Your task to perform on an android device: Search for usb-c to usb-a on newegg.com, select the first entry, add it to the cart, then select checkout. Image 0: 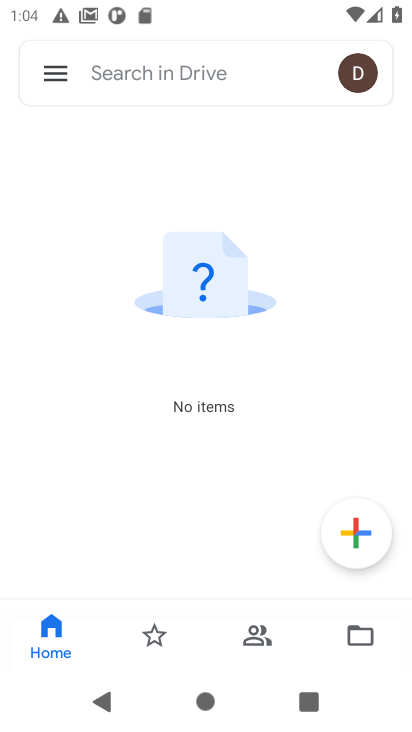
Step 0: press home button
Your task to perform on an android device: Search for usb-c to usb-a on newegg.com, select the first entry, add it to the cart, then select checkout. Image 1: 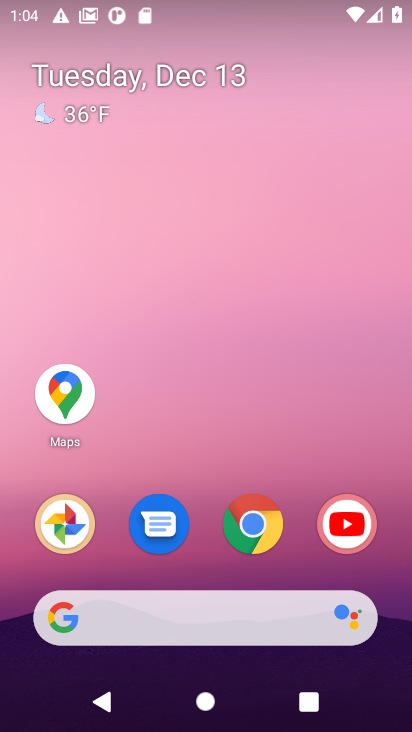
Step 1: click (260, 525)
Your task to perform on an android device: Search for usb-c to usb-a on newegg.com, select the first entry, add it to the cart, then select checkout. Image 2: 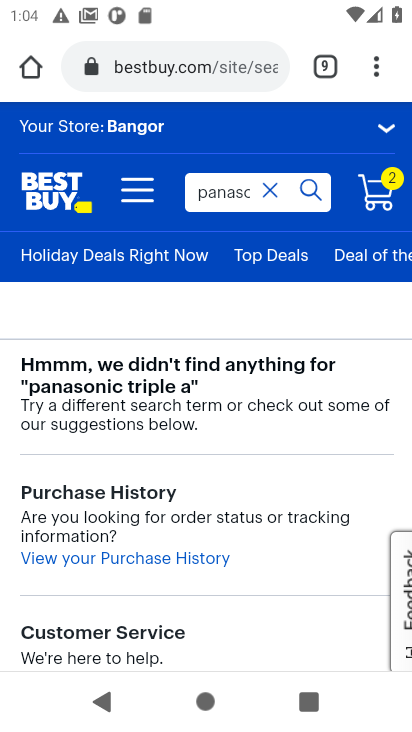
Step 2: click (165, 68)
Your task to perform on an android device: Search for usb-c to usb-a on newegg.com, select the first entry, add it to the cart, then select checkout. Image 3: 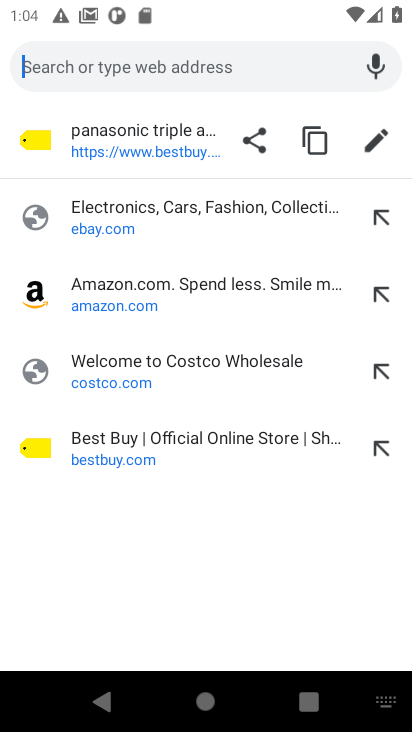
Step 3: type "newegg.com"
Your task to perform on an android device: Search for usb-c to usb-a on newegg.com, select the first entry, add it to the cart, then select checkout. Image 4: 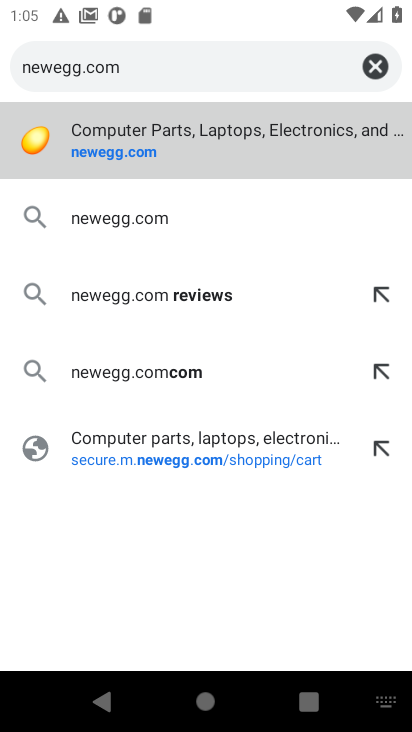
Step 4: click (120, 140)
Your task to perform on an android device: Search for usb-c to usb-a on newegg.com, select the first entry, add it to the cart, then select checkout. Image 5: 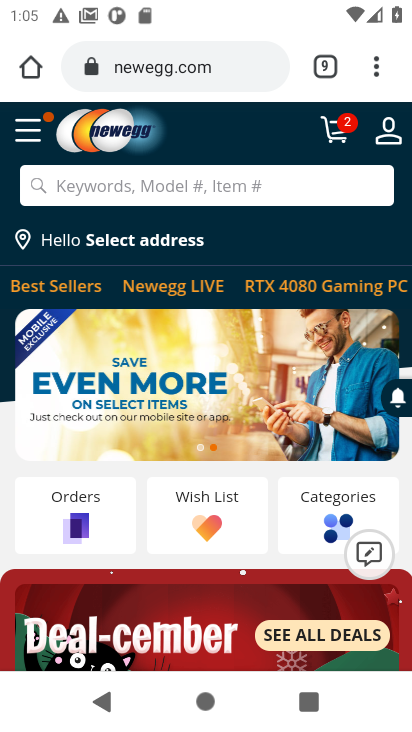
Step 5: click (71, 185)
Your task to perform on an android device: Search for usb-c to usb-a on newegg.com, select the first entry, add it to the cart, then select checkout. Image 6: 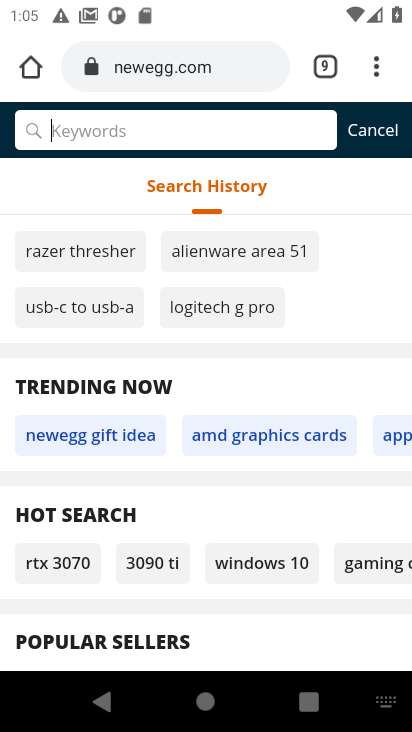
Step 6: type "usb-c to usb-a"
Your task to perform on an android device: Search for usb-c to usb-a on newegg.com, select the first entry, add it to the cart, then select checkout. Image 7: 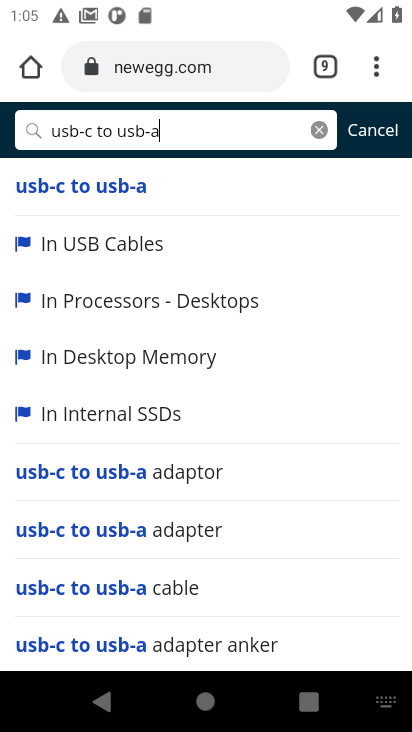
Step 7: click (107, 187)
Your task to perform on an android device: Search for usb-c to usb-a on newegg.com, select the first entry, add it to the cart, then select checkout. Image 8: 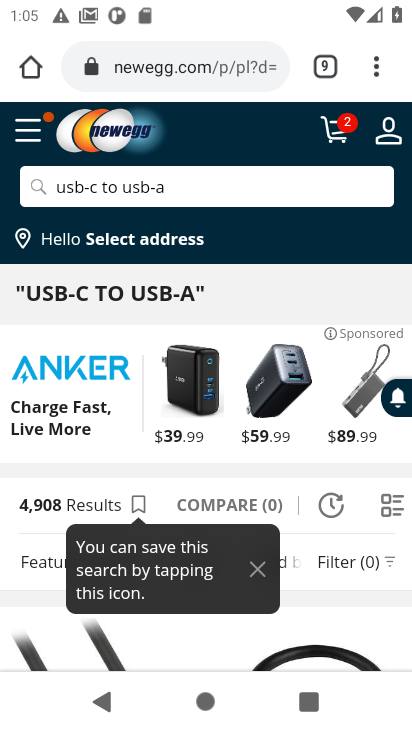
Step 8: drag from (297, 613) to (303, 294)
Your task to perform on an android device: Search for usb-c to usb-a on newegg.com, select the first entry, add it to the cart, then select checkout. Image 9: 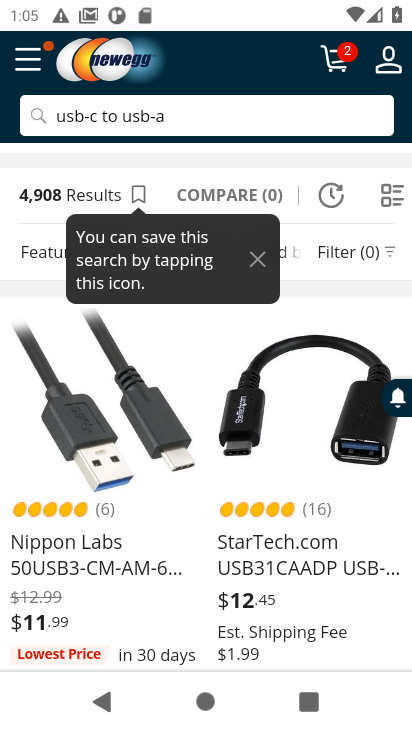
Step 9: drag from (157, 419) to (165, 561)
Your task to perform on an android device: Search for usb-c to usb-a on newegg.com, select the first entry, add it to the cart, then select checkout. Image 10: 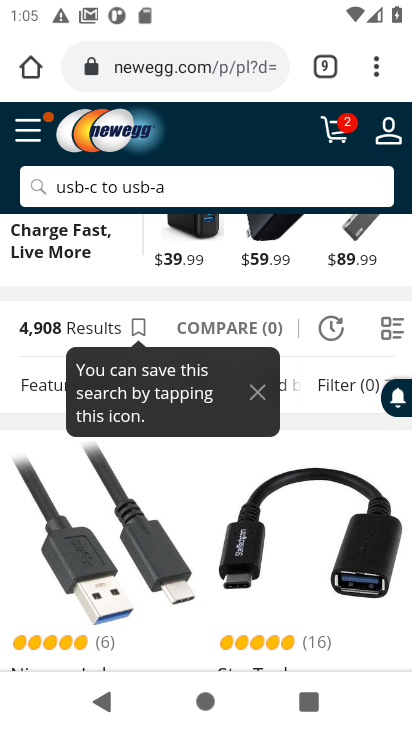
Step 10: drag from (130, 518) to (134, 669)
Your task to perform on an android device: Search for usb-c to usb-a on newegg.com, select the first entry, add it to the cart, then select checkout. Image 11: 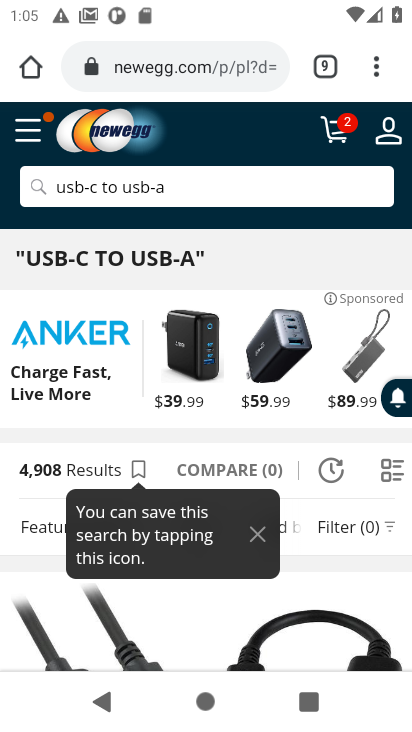
Step 11: drag from (164, 637) to (158, 340)
Your task to perform on an android device: Search for usb-c to usb-a on newegg.com, select the first entry, add it to the cart, then select checkout. Image 12: 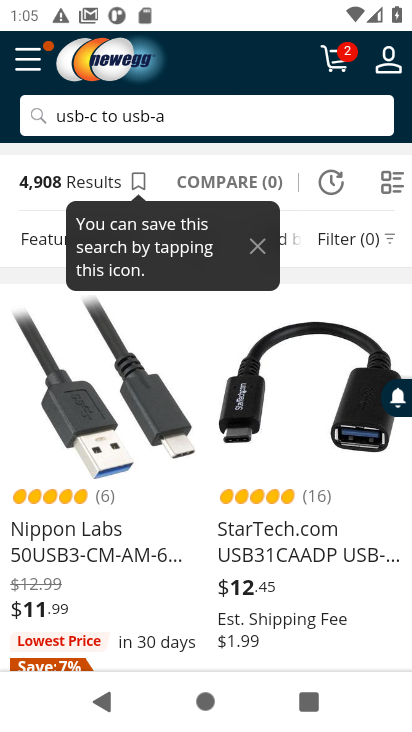
Step 12: click (257, 249)
Your task to perform on an android device: Search for usb-c to usb-a on newegg.com, select the first entry, add it to the cart, then select checkout. Image 13: 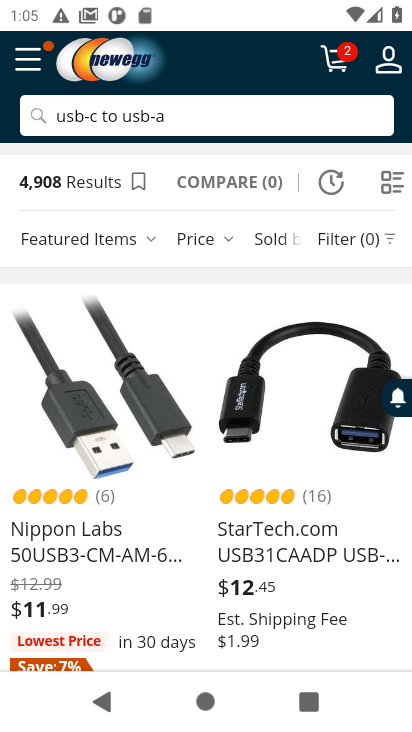
Step 13: click (94, 421)
Your task to perform on an android device: Search for usb-c to usb-a on newegg.com, select the first entry, add it to the cart, then select checkout. Image 14: 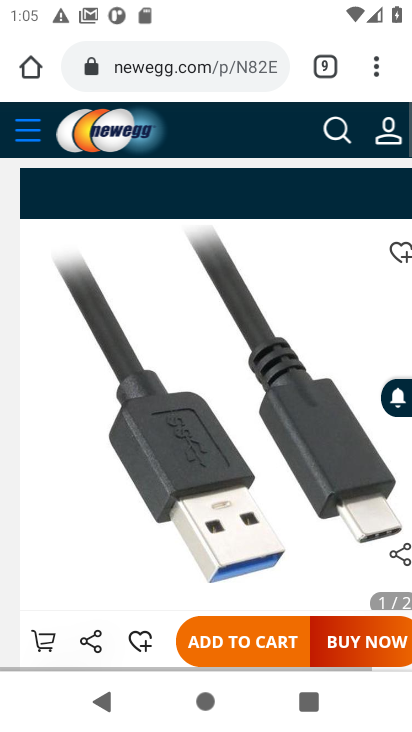
Step 14: drag from (138, 556) to (107, 266)
Your task to perform on an android device: Search for usb-c to usb-a on newegg.com, select the first entry, add it to the cart, then select checkout. Image 15: 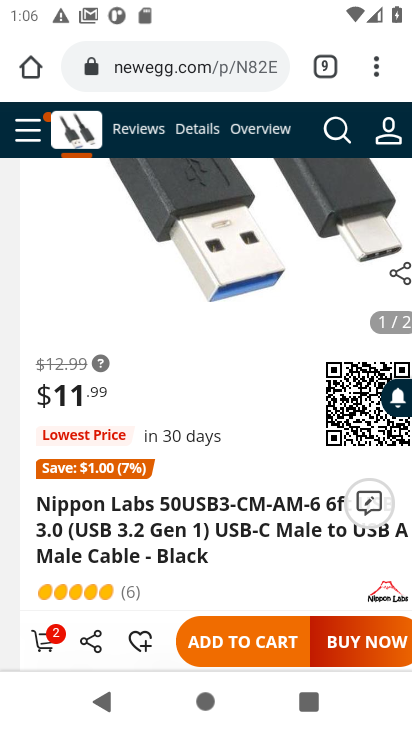
Step 15: click (255, 637)
Your task to perform on an android device: Search for usb-c to usb-a on newegg.com, select the first entry, add it to the cart, then select checkout. Image 16: 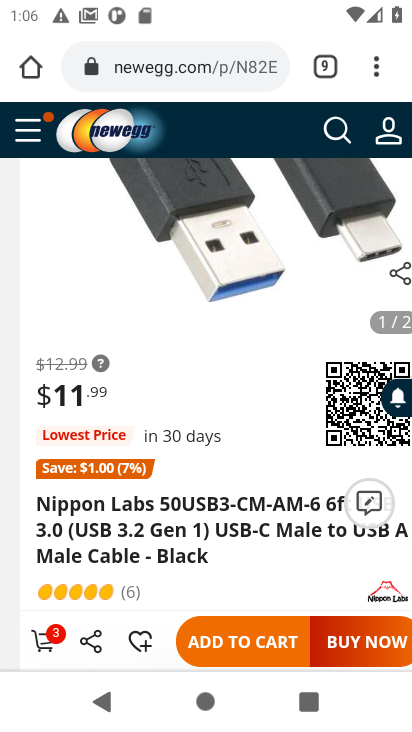
Step 16: click (48, 645)
Your task to perform on an android device: Search for usb-c to usb-a on newegg.com, select the first entry, add it to the cart, then select checkout. Image 17: 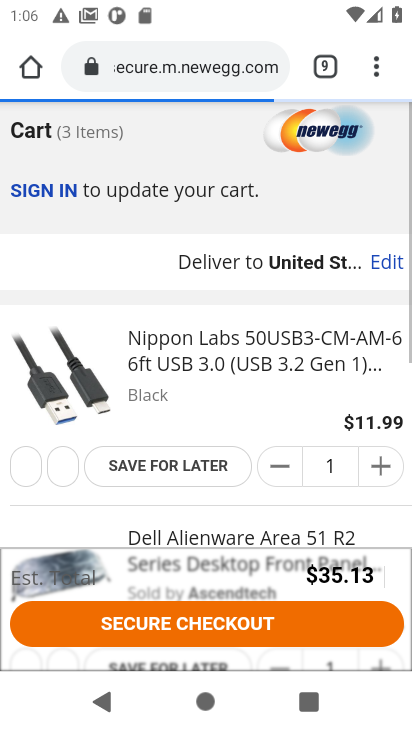
Step 17: click (98, 618)
Your task to perform on an android device: Search for usb-c to usb-a on newegg.com, select the first entry, add it to the cart, then select checkout. Image 18: 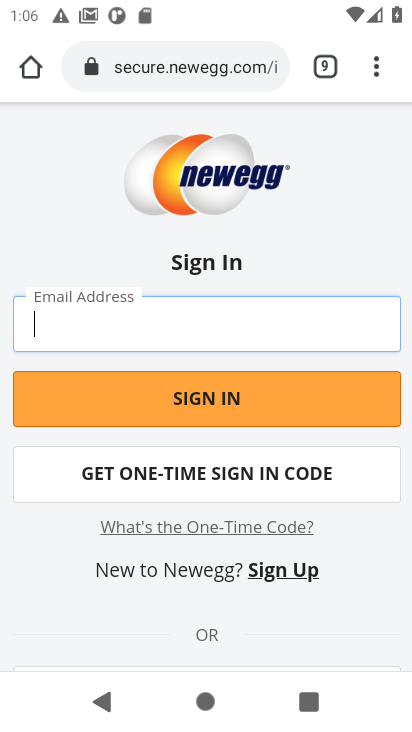
Step 18: task complete